Your task to perform on an android device: toggle notification dots Image 0: 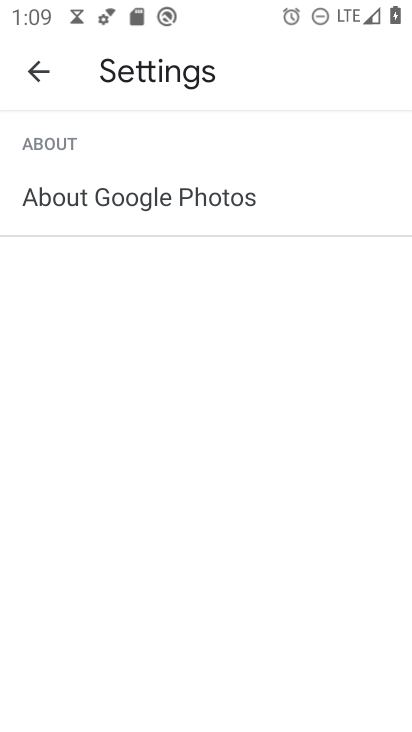
Step 0: press home button
Your task to perform on an android device: toggle notification dots Image 1: 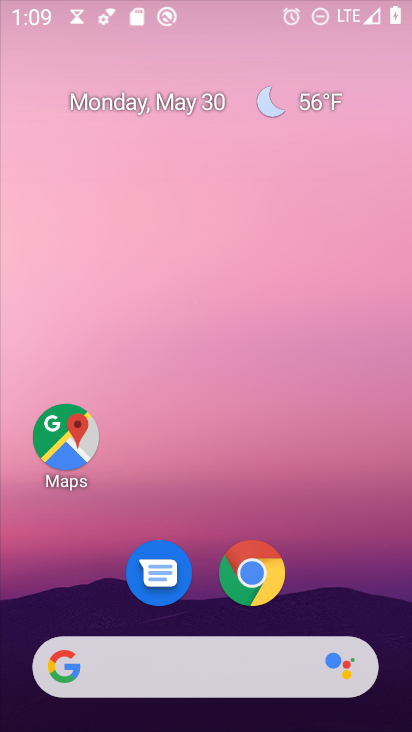
Step 1: drag from (283, 674) to (324, 10)
Your task to perform on an android device: toggle notification dots Image 2: 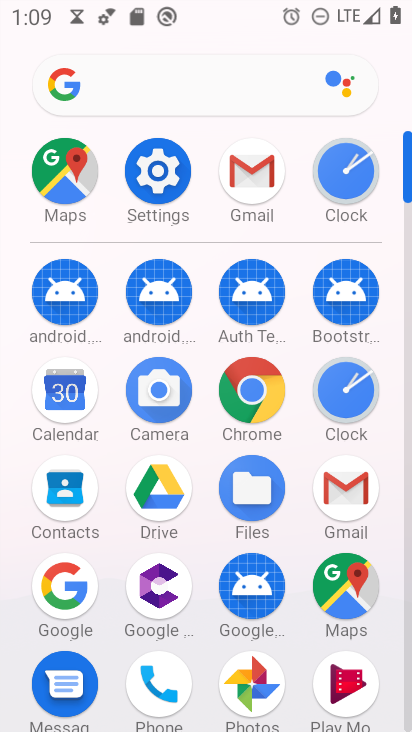
Step 2: click (160, 170)
Your task to perform on an android device: toggle notification dots Image 3: 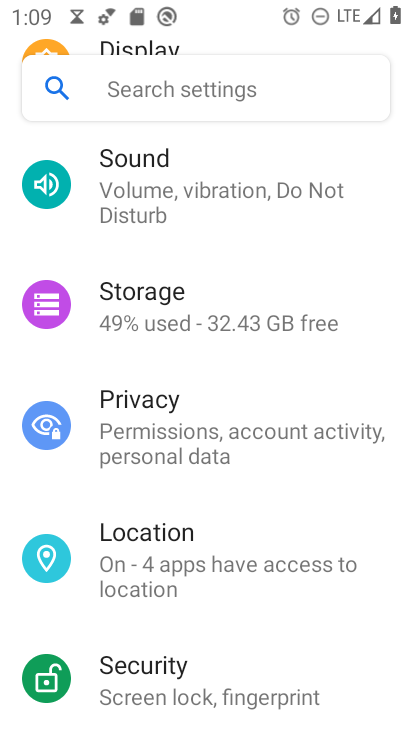
Step 3: drag from (177, 283) to (70, 728)
Your task to perform on an android device: toggle notification dots Image 4: 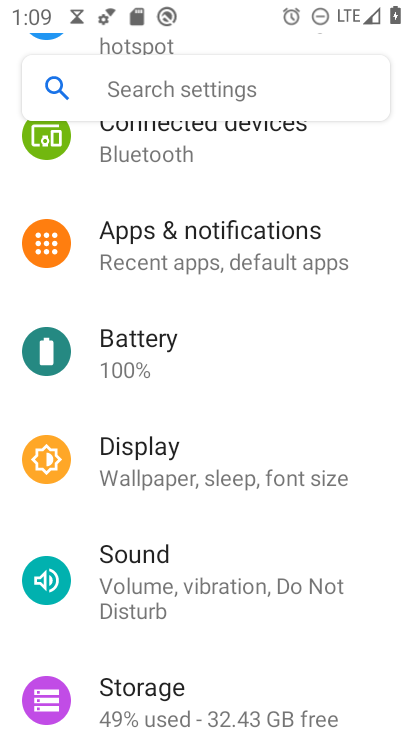
Step 4: click (273, 270)
Your task to perform on an android device: toggle notification dots Image 5: 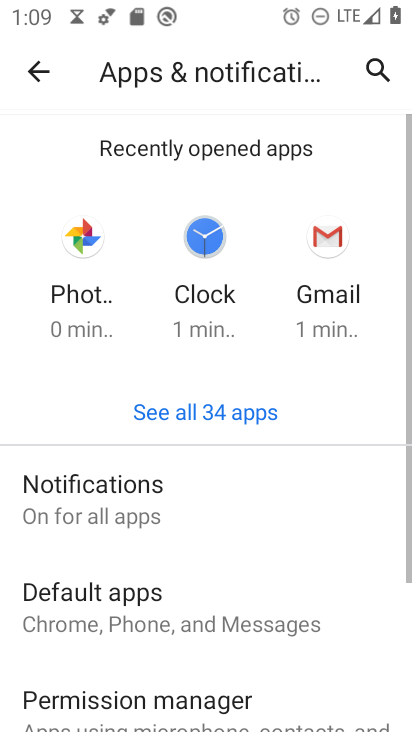
Step 5: drag from (231, 611) to (345, 0)
Your task to perform on an android device: toggle notification dots Image 6: 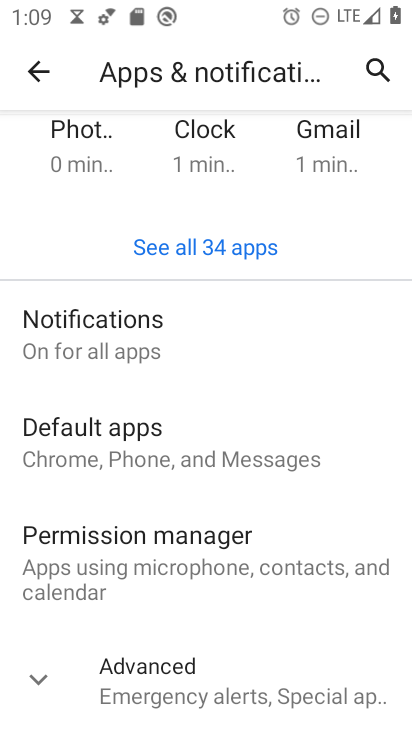
Step 6: click (261, 684)
Your task to perform on an android device: toggle notification dots Image 7: 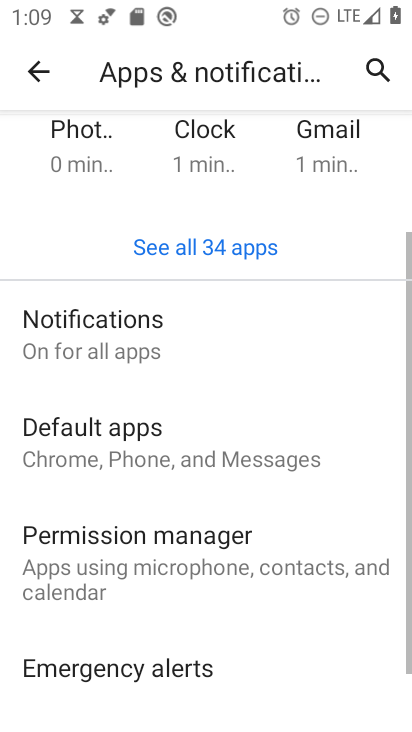
Step 7: drag from (228, 672) to (234, 271)
Your task to perform on an android device: toggle notification dots Image 8: 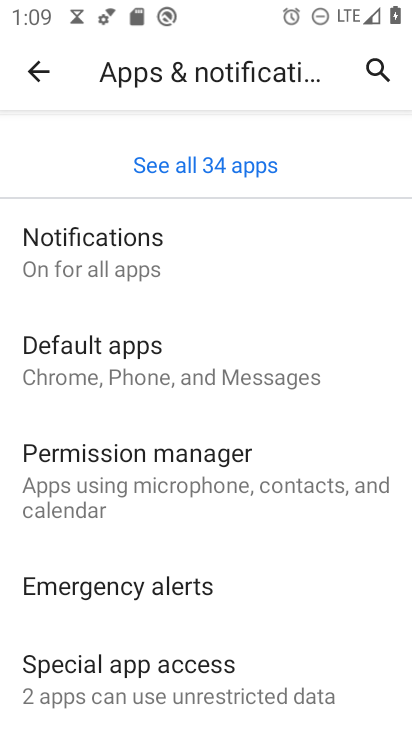
Step 8: click (144, 245)
Your task to perform on an android device: toggle notification dots Image 9: 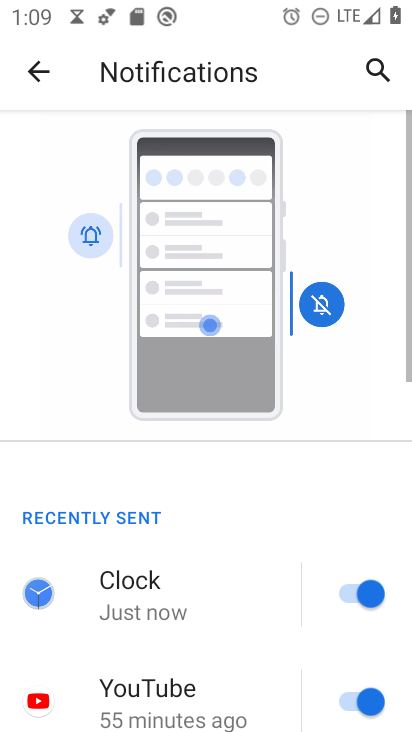
Step 9: drag from (223, 671) to (198, 11)
Your task to perform on an android device: toggle notification dots Image 10: 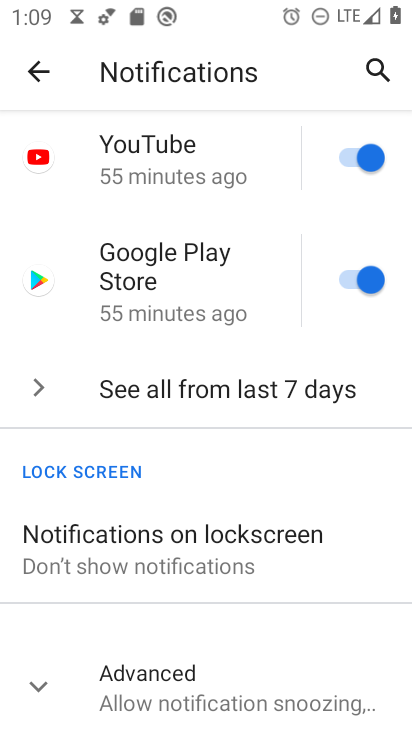
Step 10: click (240, 691)
Your task to perform on an android device: toggle notification dots Image 11: 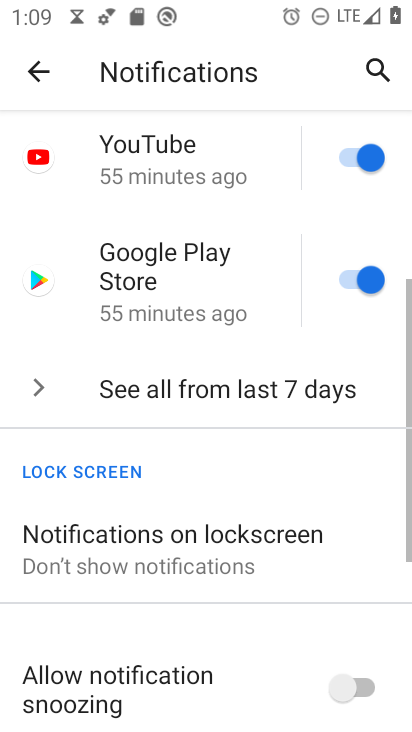
Step 11: drag from (240, 691) to (234, 151)
Your task to perform on an android device: toggle notification dots Image 12: 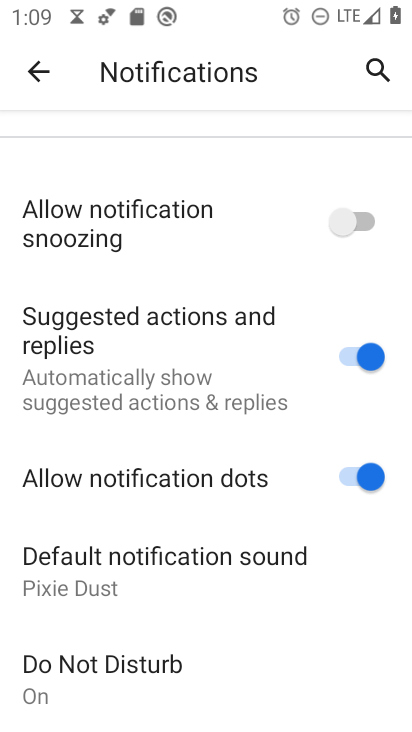
Step 12: click (349, 475)
Your task to perform on an android device: toggle notification dots Image 13: 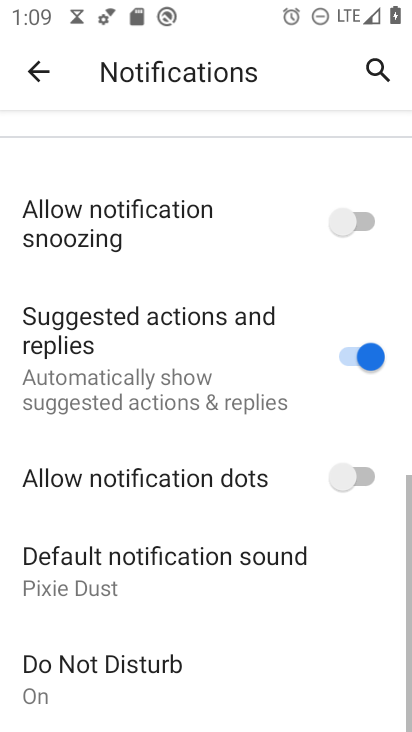
Step 13: task complete